Your task to perform on an android device: all mails in gmail Image 0: 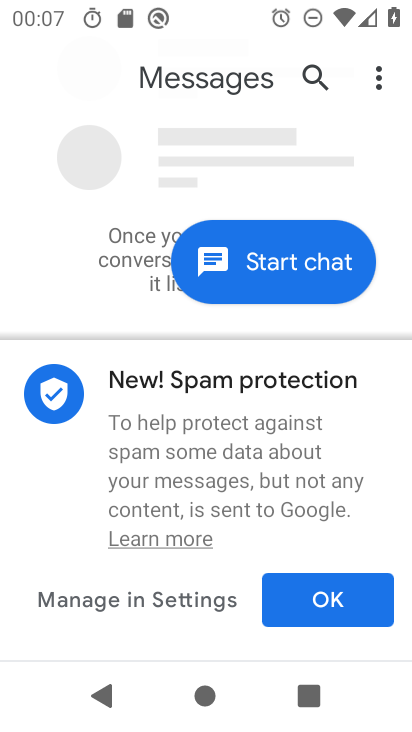
Step 0: press home button
Your task to perform on an android device: all mails in gmail Image 1: 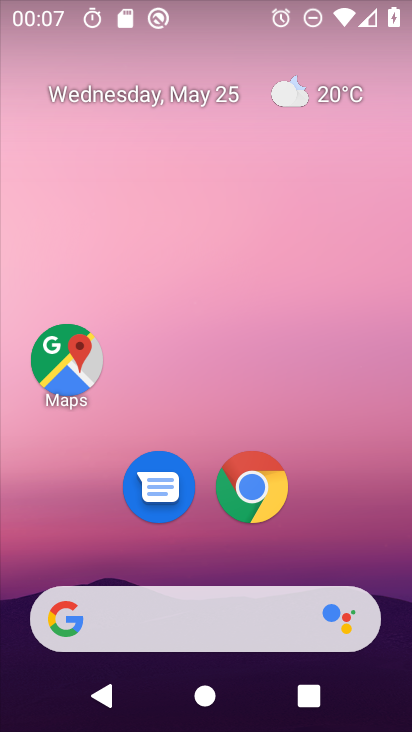
Step 1: drag from (354, 574) to (313, 9)
Your task to perform on an android device: all mails in gmail Image 2: 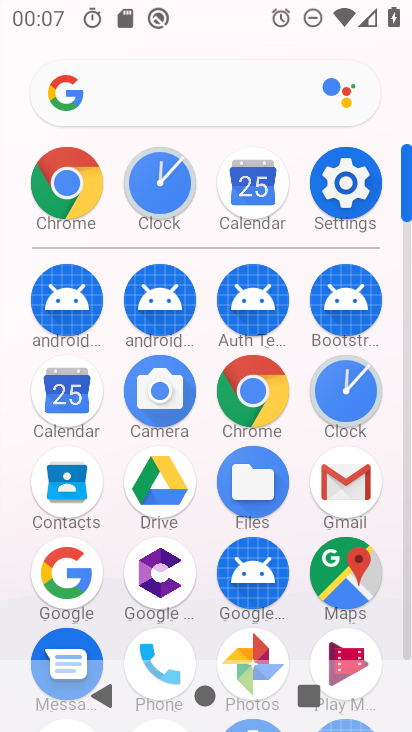
Step 2: click (348, 487)
Your task to perform on an android device: all mails in gmail Image 3: 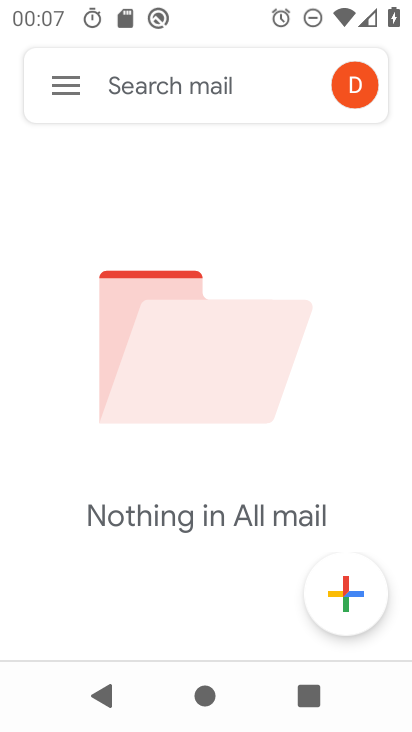
Step 3: task complete